Your task to perform on an android device: toggle airplane mode Image 0: 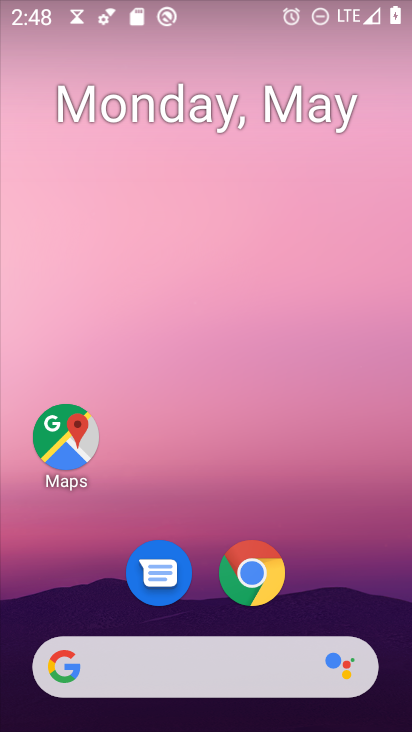
Step 0: drag from (262, 628) to (259, 47)
Your task to perform on an android device: toggle airplane mode Image 1: 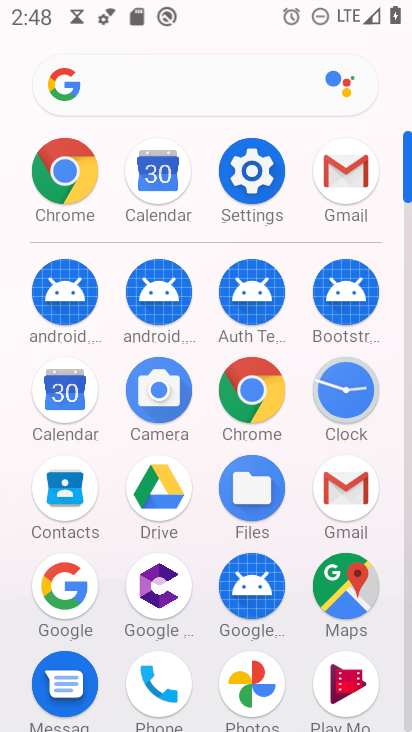
Step 1: click (252, 167)
Your task to perform on an android device: toggle airplane mode Image 2: 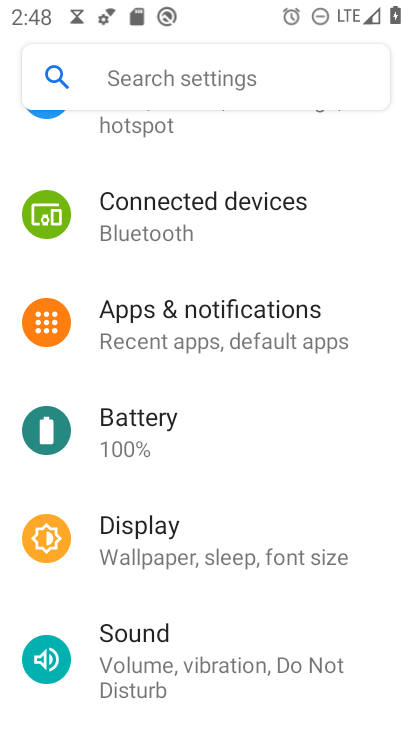
Step 2: drag from (264, 298) to (274, 696)
Your task to perform on an android device: toggle airplane mode Image 3: 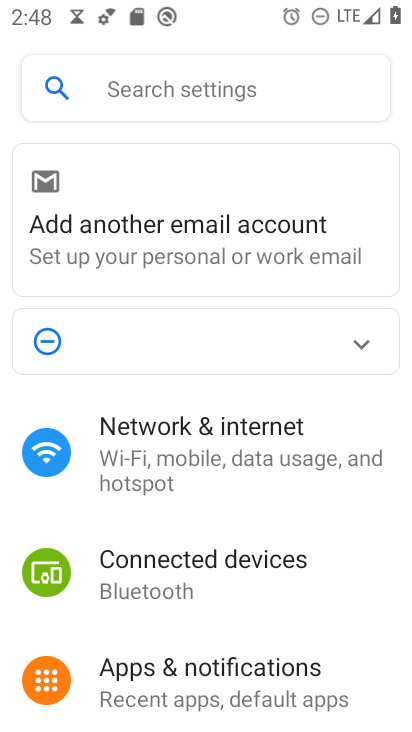
Step 3: click (263, 431)
Your task to perform on an android device: toggle airplane mode Image 4: 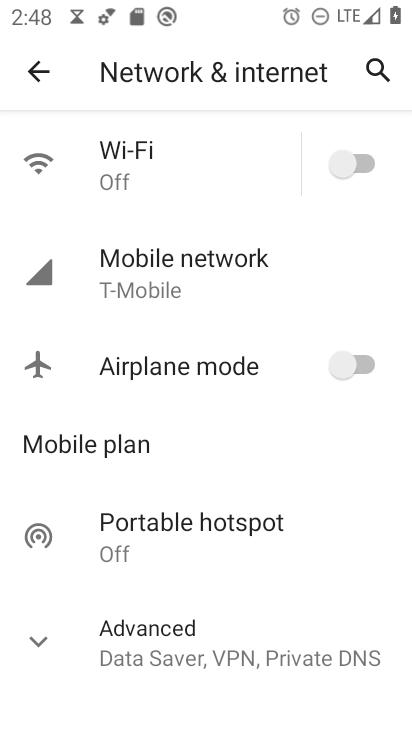
Step 4: click (368, 358)
Your task to perform on an android device: toggle airplane mode Image 5: 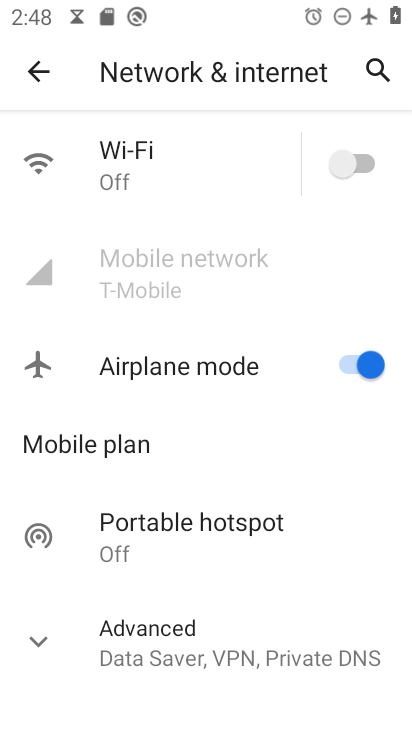
Step 5: task complete